Your task to perform on an android device: Go to Google maps Image 0: 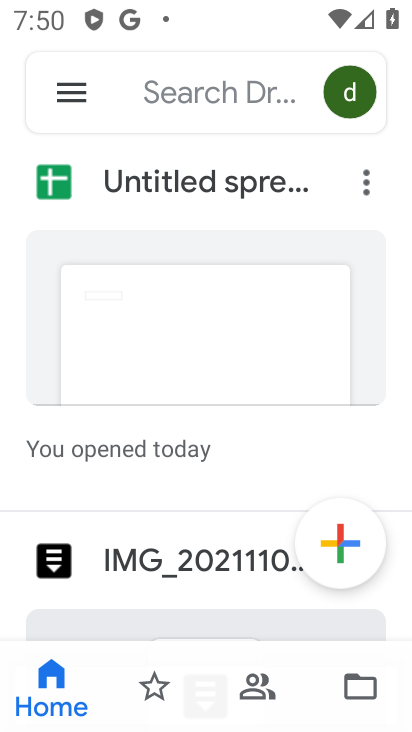
Step 0: press home button
Your task to perform on an android device: Go to Google maps Image 1: 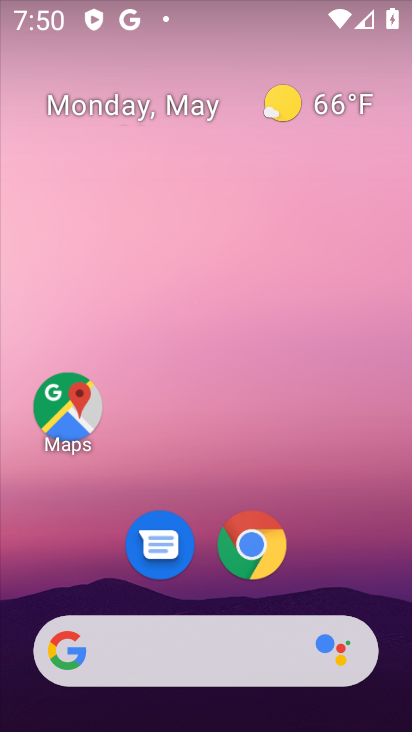
Step 1: click (69, 403)
Your task to perform on an android device: Go to Google maps Image 2: 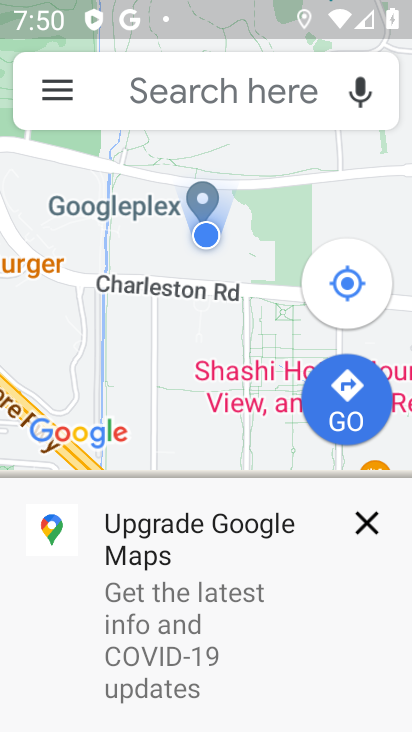
Step 2: task complete